Your task to perform on an android device: open a bookmark in the chrome app Image 0: 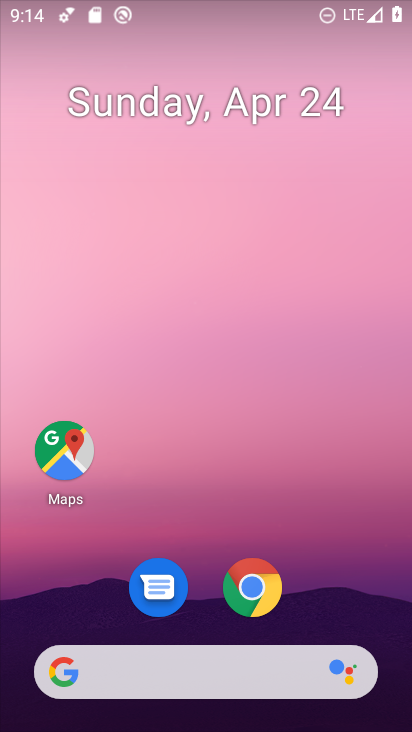
Step 0: drag from (340, 471) to (359, 102)
Your task to perform on an android device: open a bookmark in the chrome app Image 1: 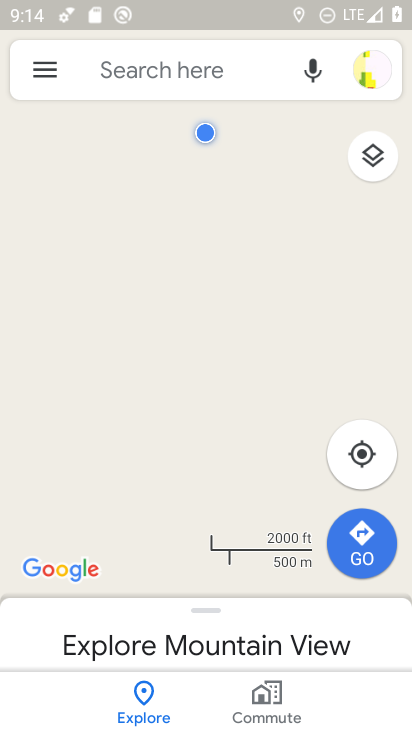
Step 1: press home button
Your task to perform on an android device: open a bookmark in the chrome app Image 2: 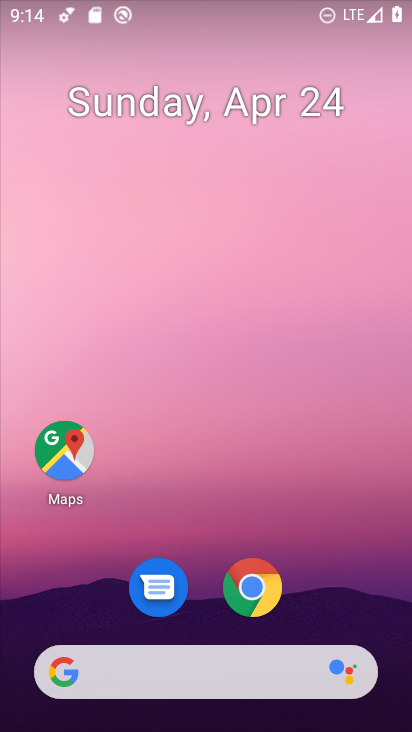
Step 2: drag from (332, 605) to (387, 51)
Your task to perform on an android device: open a bookmark in the chrome app Image 3: 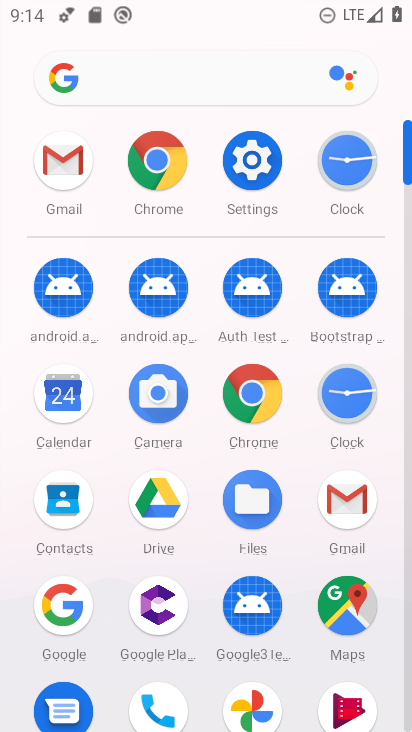
Step 3: click (257, 390)
Your task to perform on an android device: open a bookmark in the chrome app Image 4: 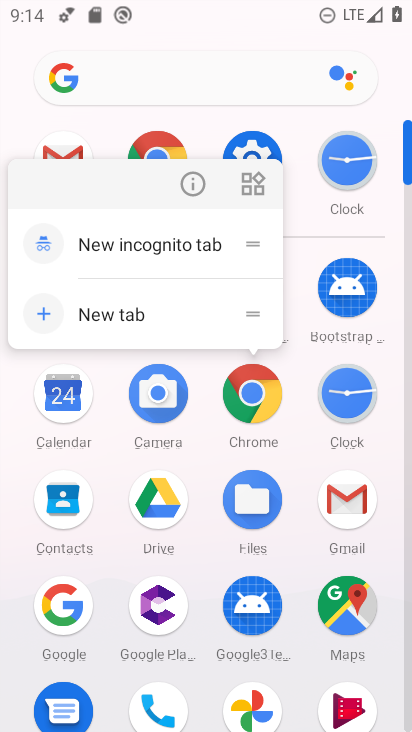
Step 4: click (256, 390)
Your task to perform on an android device: open a bookmark in the chrome app Image 5: 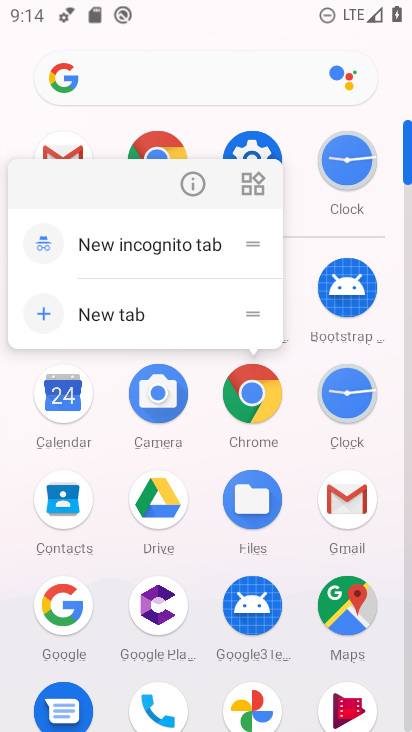
Step 5: click (264, 409)
Your task to perform on an android device: open a bookmark in the chrome app Image 6: 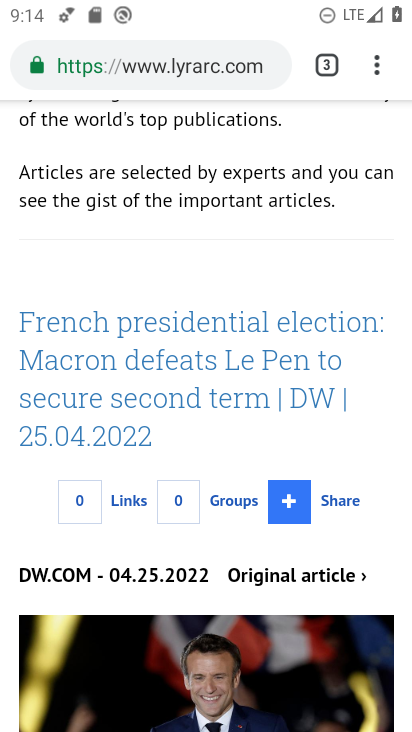
Step 6: click (383, 75)
Your task to perform on an android device: open a bookmark in the chrome app Image 7: 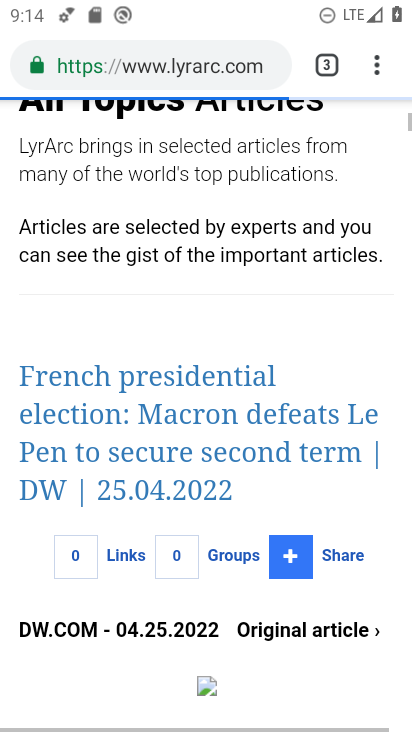
Step 7: task complete